Your task to perform on an android device: Go to location settings Image 0: 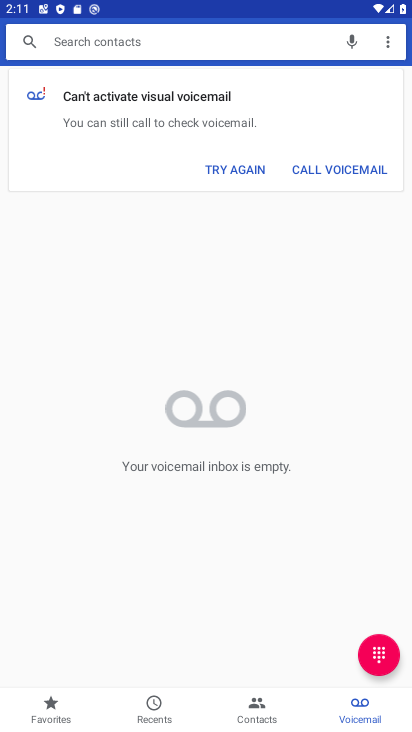
Step 0: press home button
Your task to perform on an android device: Go to location settings Image 1: 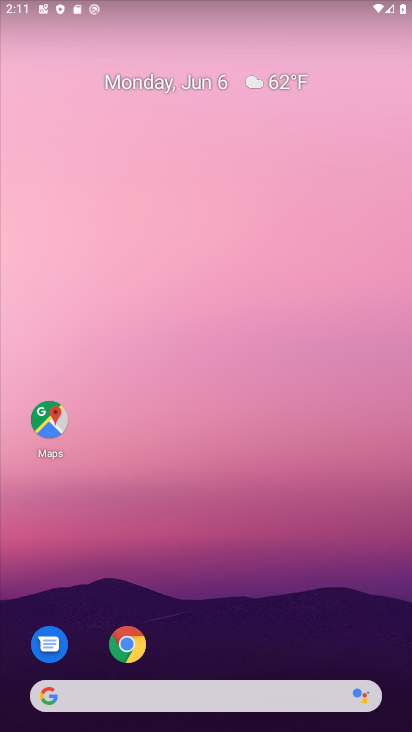
Step 1: drag from (153, 728) to (207, 90)
Your task to perform on an android device: Go to location settings Image 2: 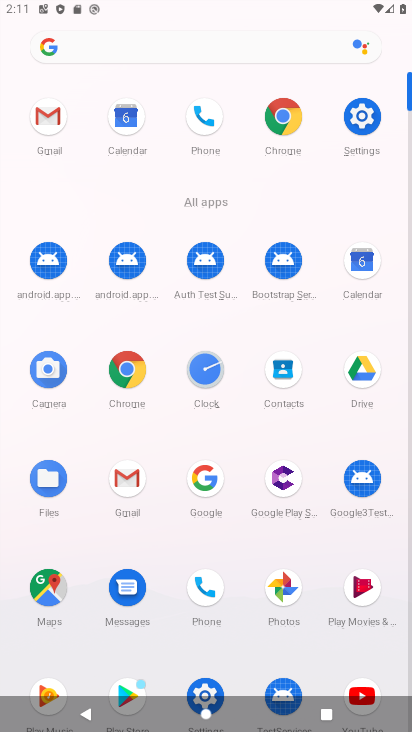
Step 2: click (350, 119)
Your task to perform on an android device: Go to location settings Image 3: 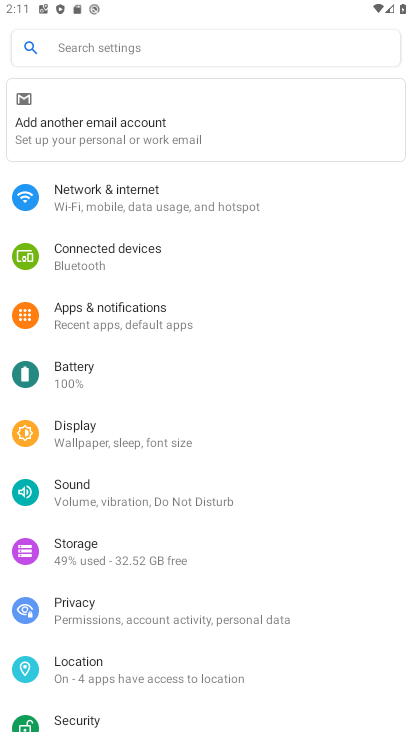
Step 3: click (79, 670)
Your task to perform on an android device: Go to location settings Image 4: 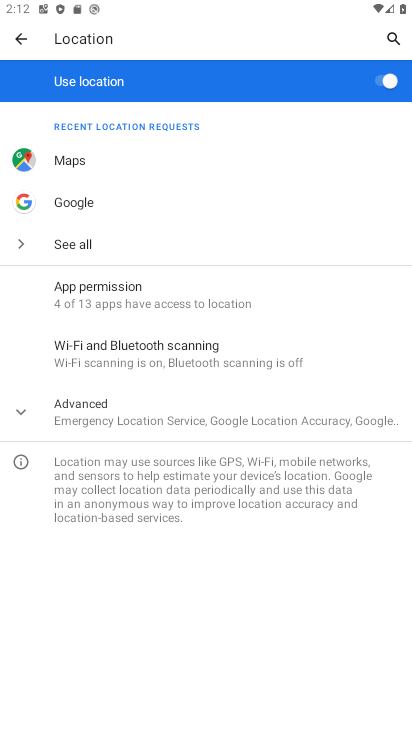
Step 4: task complete